Your task to perform on an android device: Open Chrome and go to the settings page Image 0: 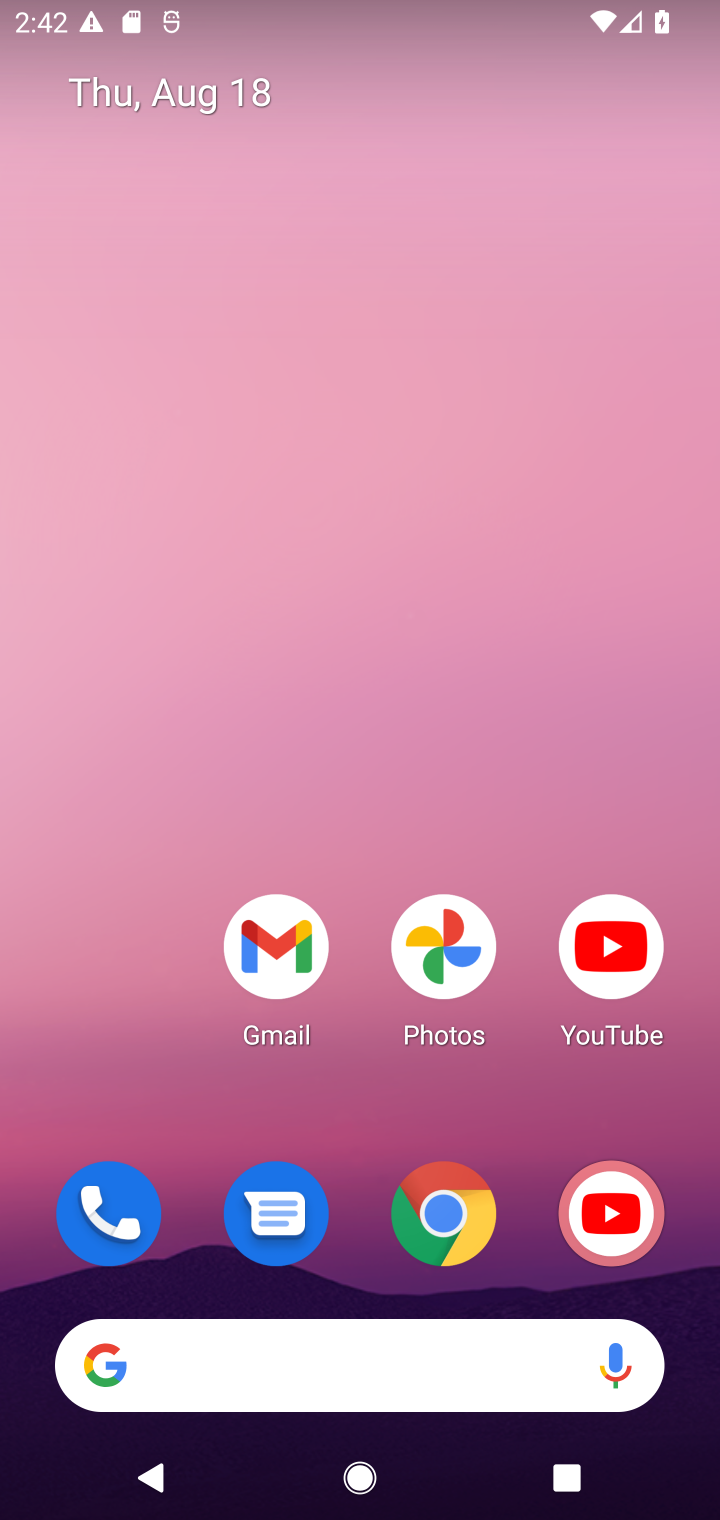
Step 0: press home button
Your task to perform on an android device: Open Chrome and go to the settings page Image 1: 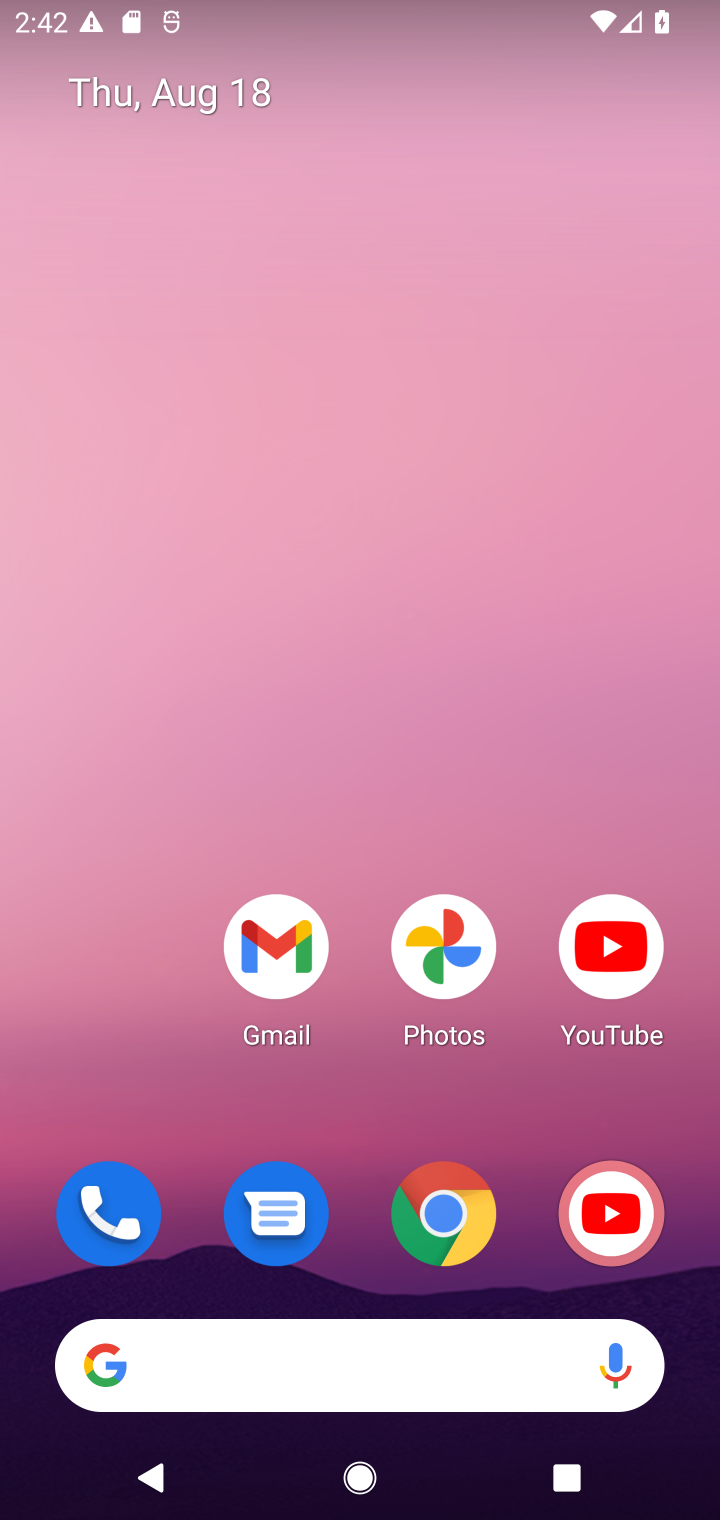
Step 1: click (419, 1213)
Your task to perform on an android device: Open Chrome and go to the settings page Image 2: 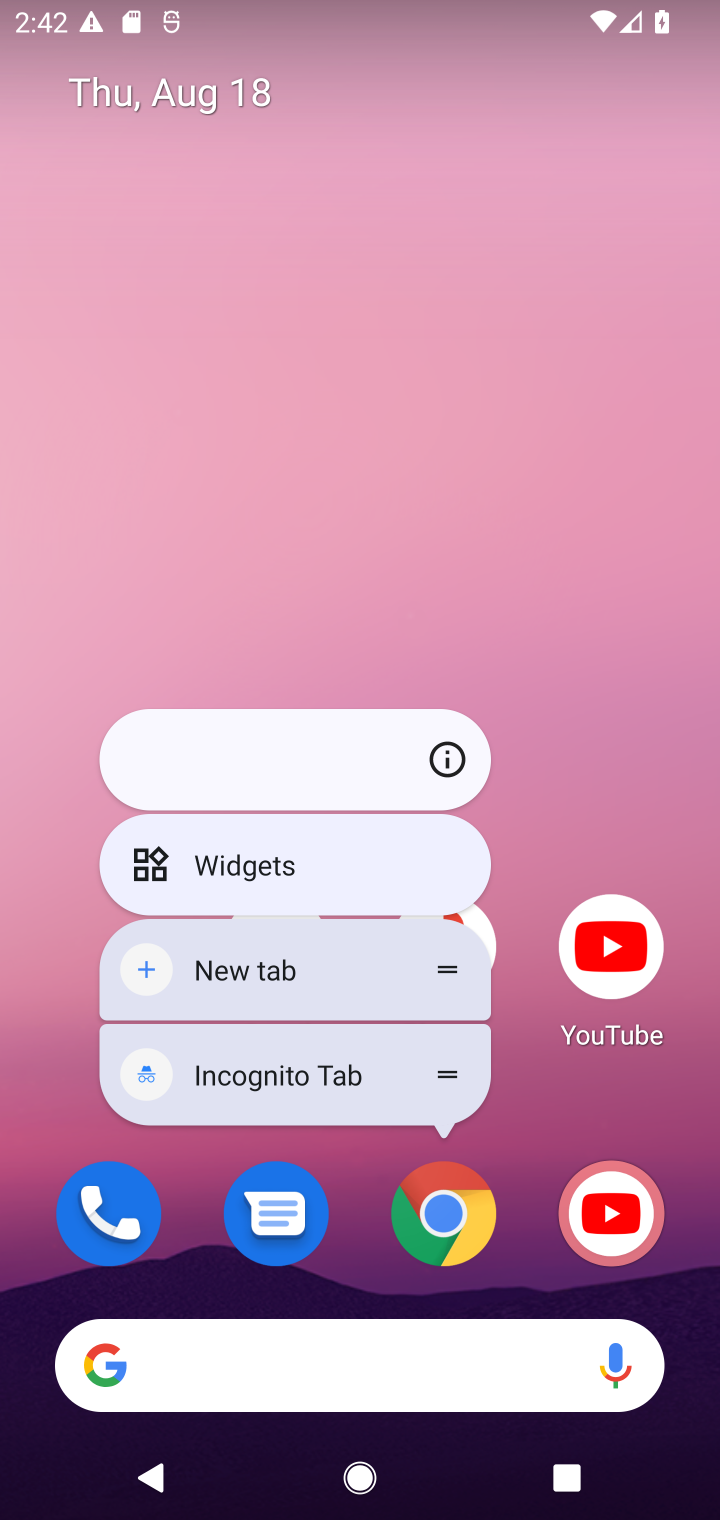
Step 2: click (458, 1222)
Your task to perform on an android device: Open Chrome and go to the settings page Image 3: 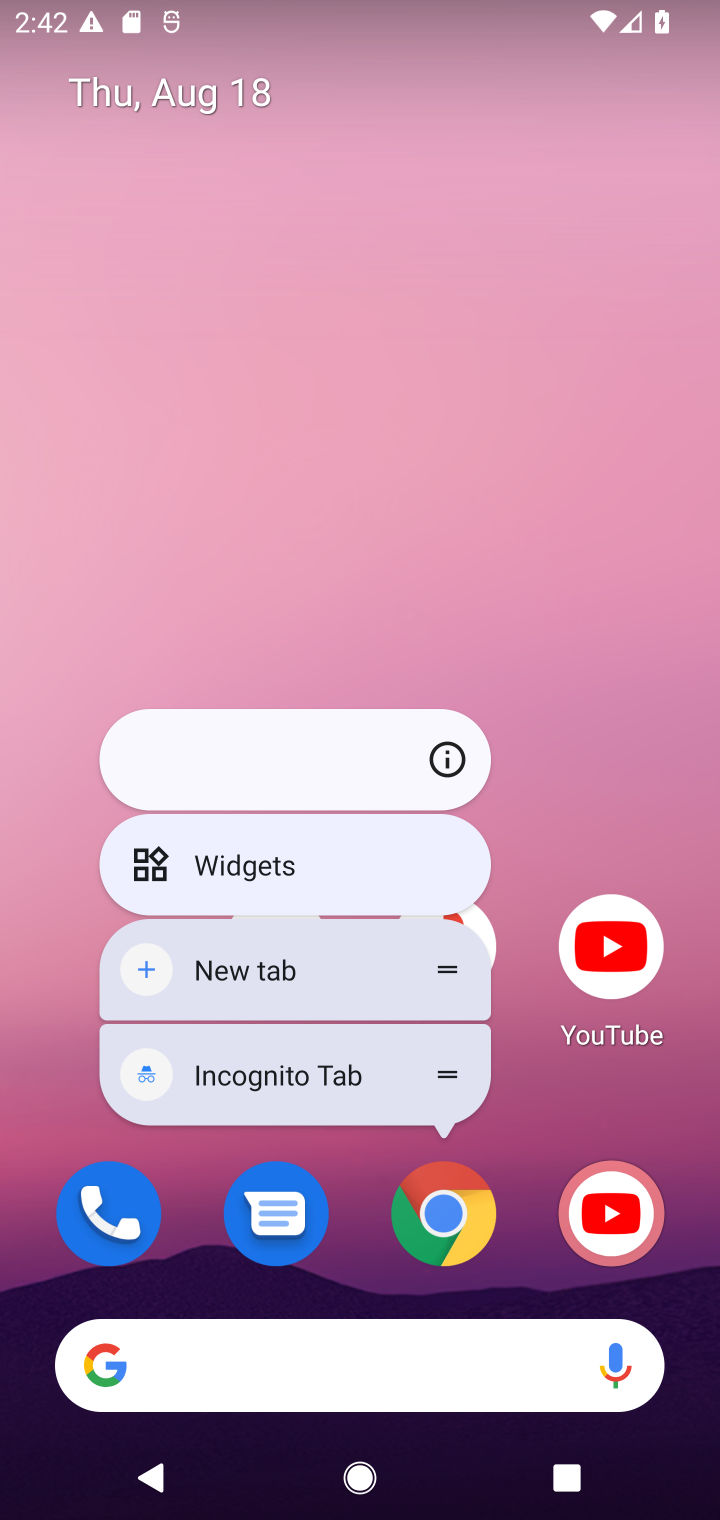
Step 3: click (458, 1222)
Your task to perform on an android device: Open Chrome and go to the settings page Image 4: 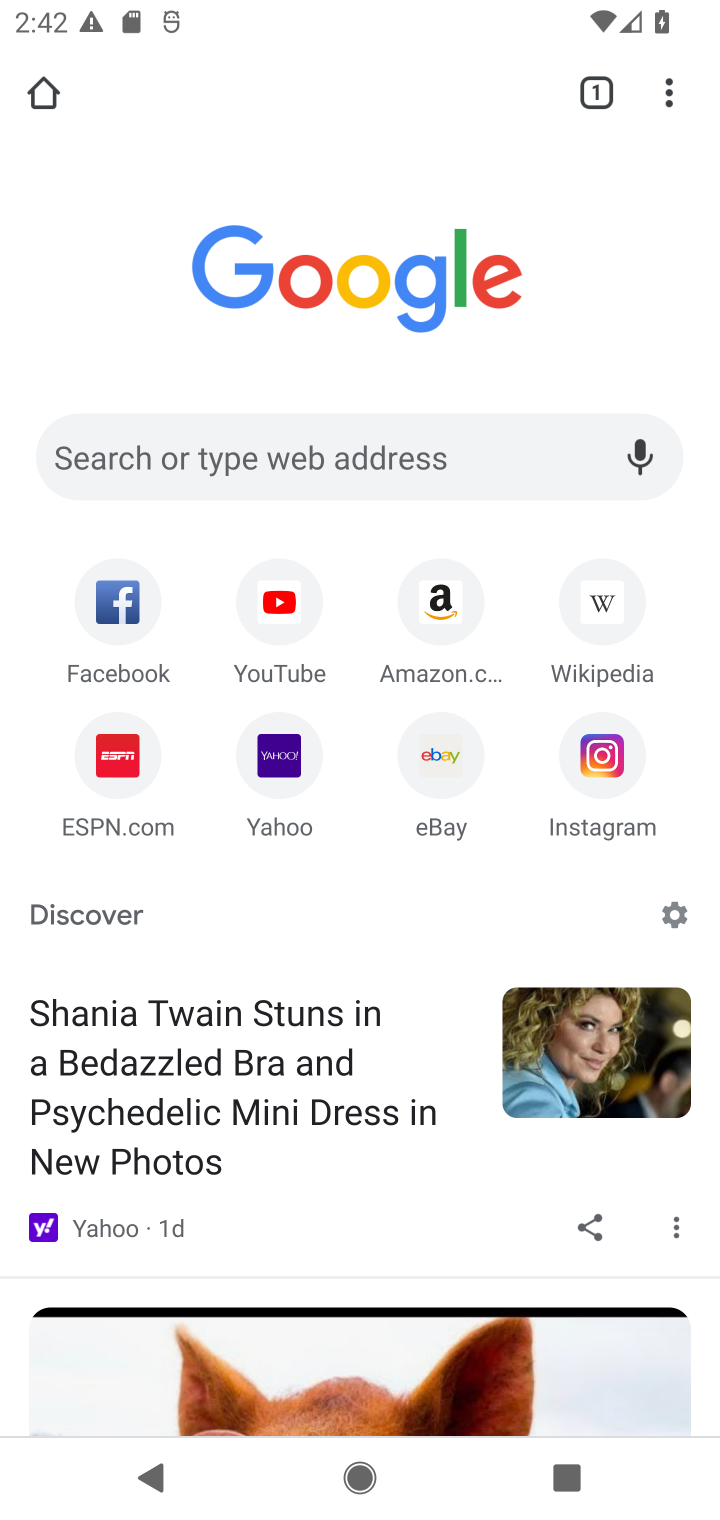
Step 4: task complete